Your task to perform on an android device: set default search engine in the chrome app Image 0: 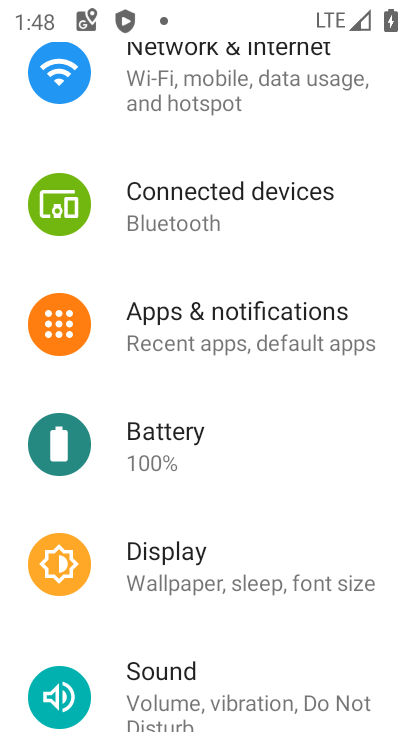
Step 0: press home button
Your task to perform on an android device: set default search engine in the chrome app Image 1: 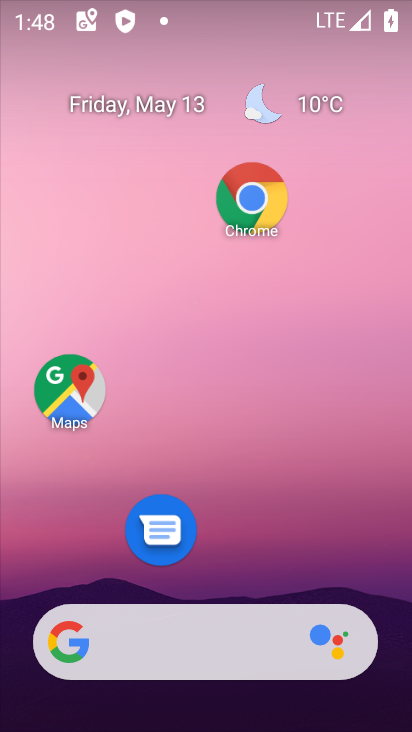
Step 1: click (246, 195)
Your task to perform on an android device: set default search engine in the chrome app Image 2: 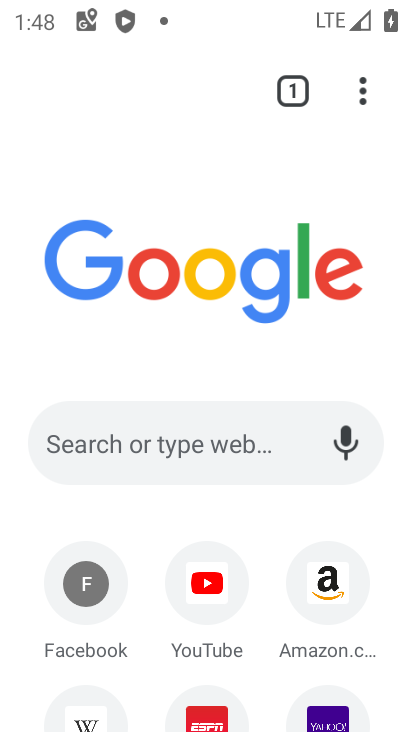
Step 2: click (361, 97)
Your task to perform on an android device: set default search engine in the chrome app Image 3: 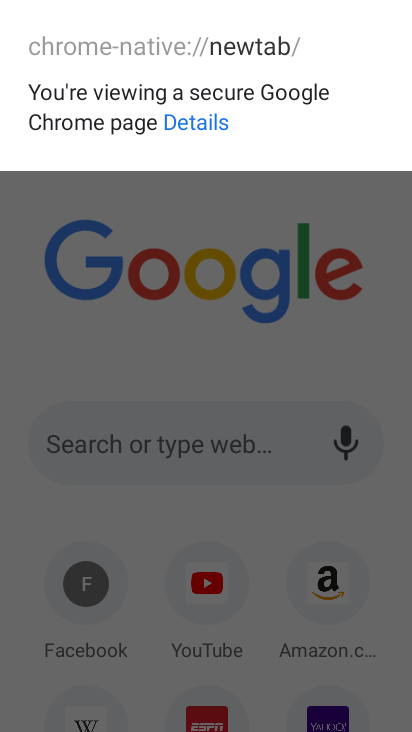
Step 3: click (346, 194)
Your task to perform on an android device: set default search engine in the chrome app Image 4: 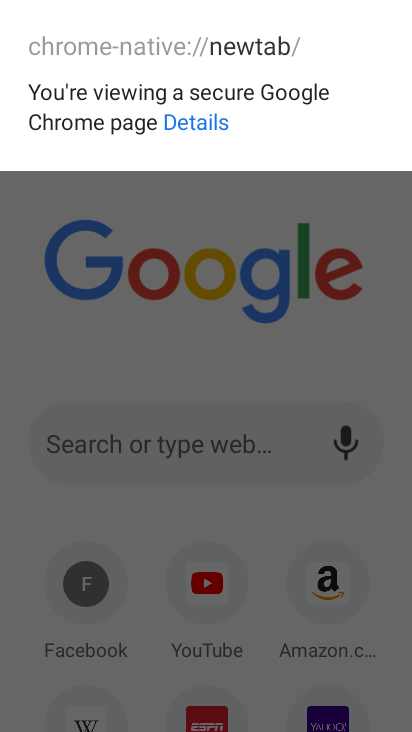
Step 4: click (332, 226)
Your task to perform on an android device: set default search engine in the chrome app Image 5: 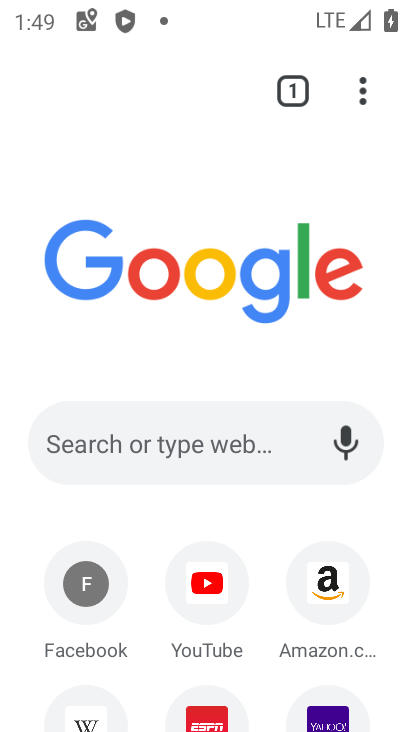
Step 5: click (369, 79)
Your task to perform on an android device: set default search engine in the chrome app Image 6: 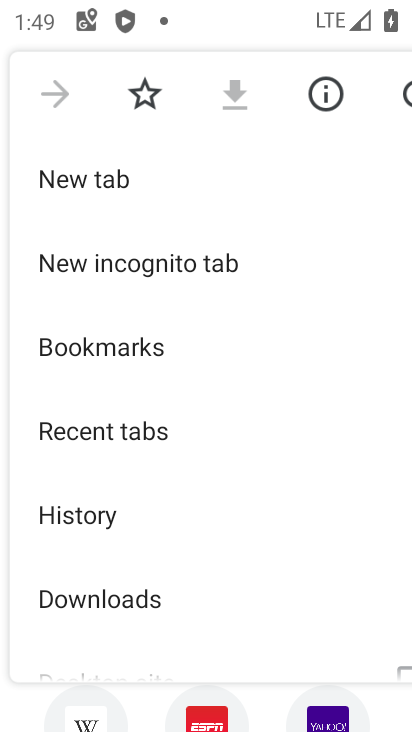
Step 6: drag from (153, 563) to (132, 85)
Your task to perform on an android device: set default search engine in the chrome app Image 7: 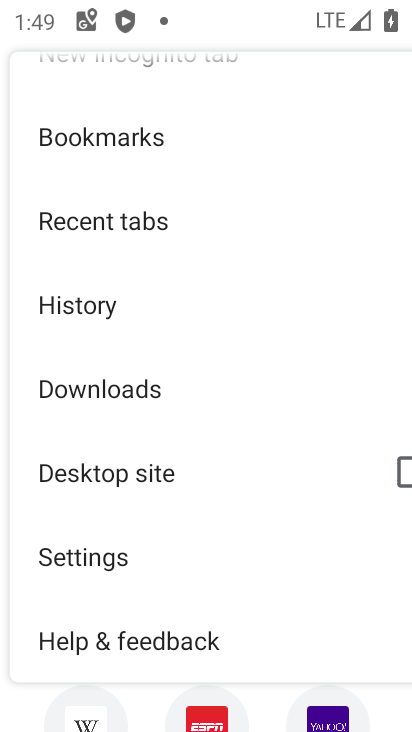
Step 7: click (116, 576)
Your task to perform on an android device: set default search engine in the chrome app Image 8: 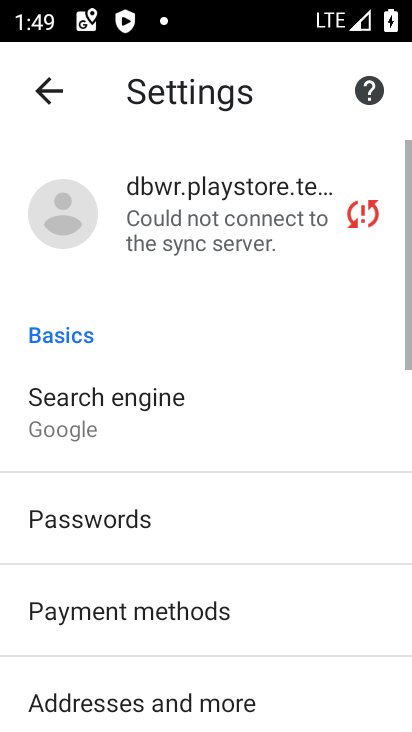
Step 8: click (123, 438)
Your task to perform on an android device: set default search engine in the chrome app Image 9: 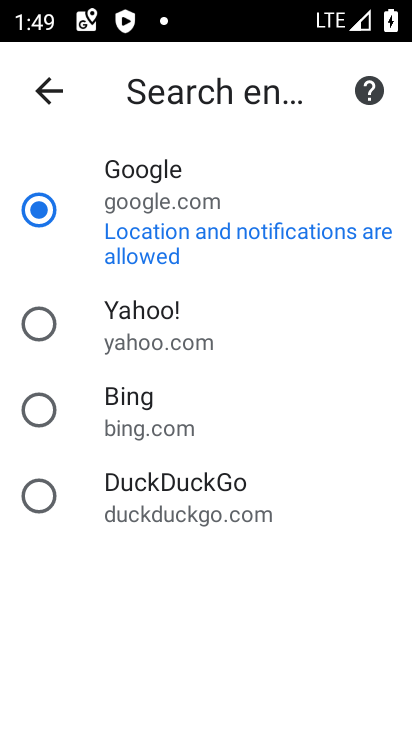
Step 9: task complete